Your task to perform on an android device: Show me recent news Image 0: 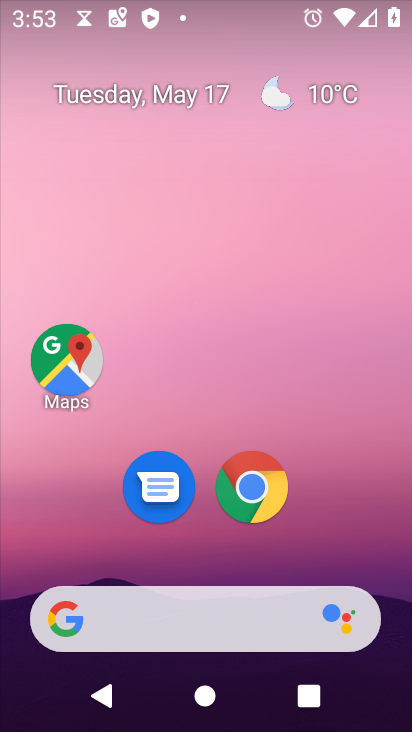
Step 0: drag from (6, 232) to (330, 294)
Your task to perform on an android device: Show me recent news Image 1: 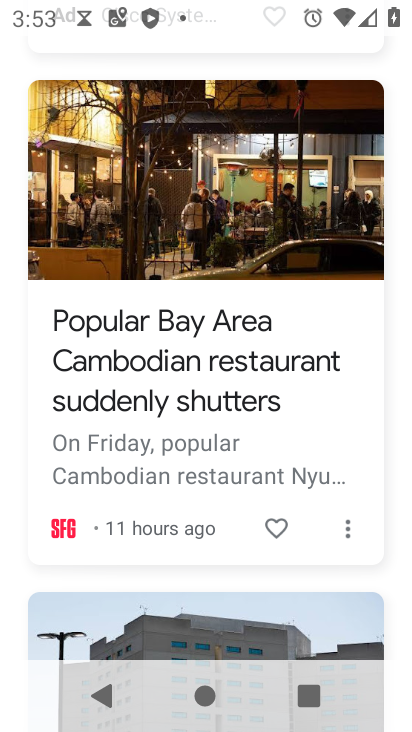
Step 1: task complete